Your task to perform on an android device: Go to display settings Image 0: 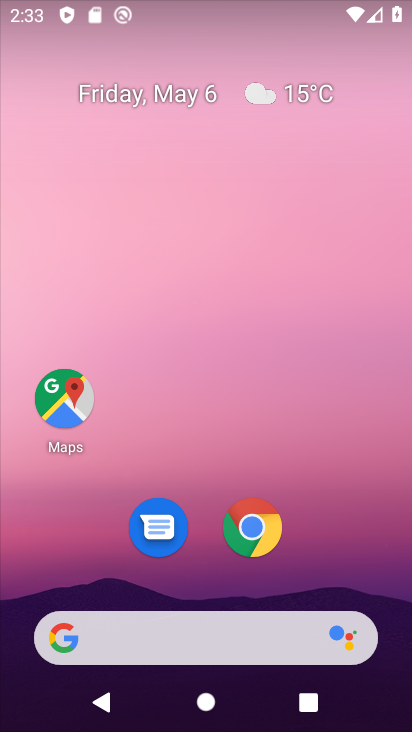
Step 0: drag from (222, 586) to (208, 264)
Your task to perform on an android device: Go to display settings Image 1: 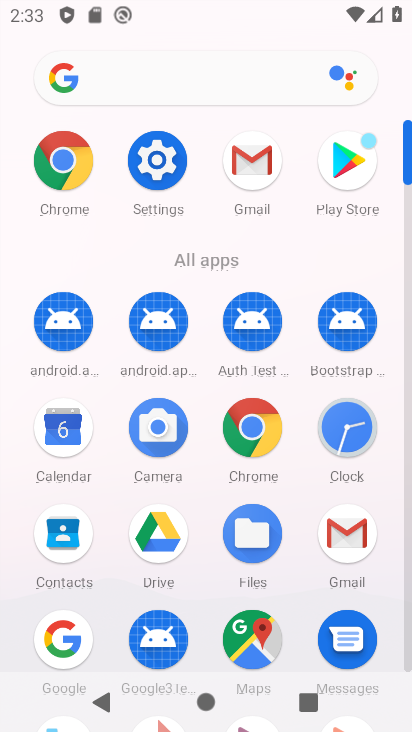
Step 1: click (152, 171)
Your task to perform on an android device: Go to display settings Image 2: 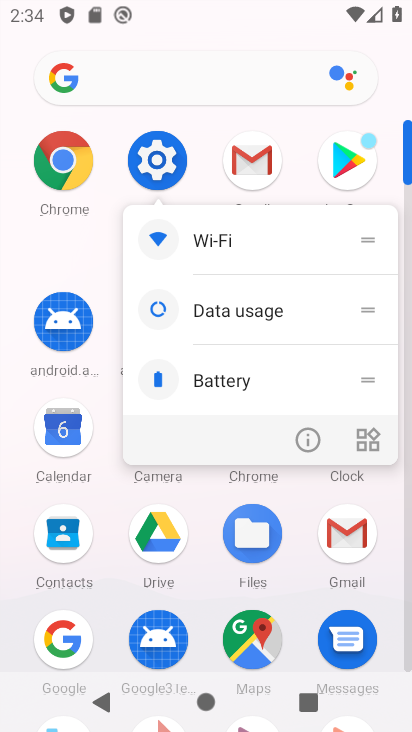
Step 2: click (304, 441)
Your task to perform on an android device: Go to display settings Image 3: 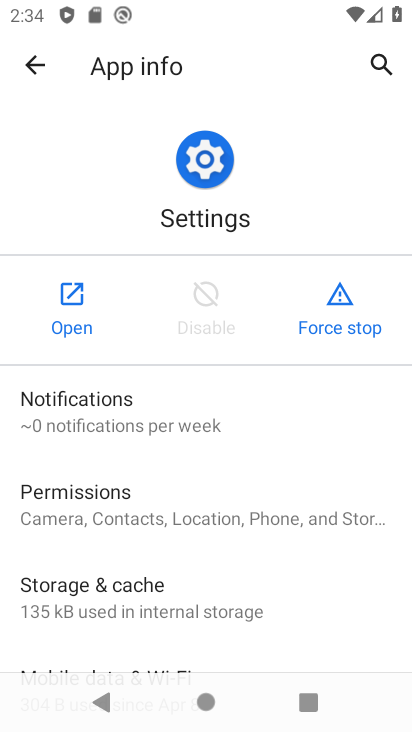
Step 3: click (81, 312)
Your task to perform on an android device: Go to display settings Image 4: 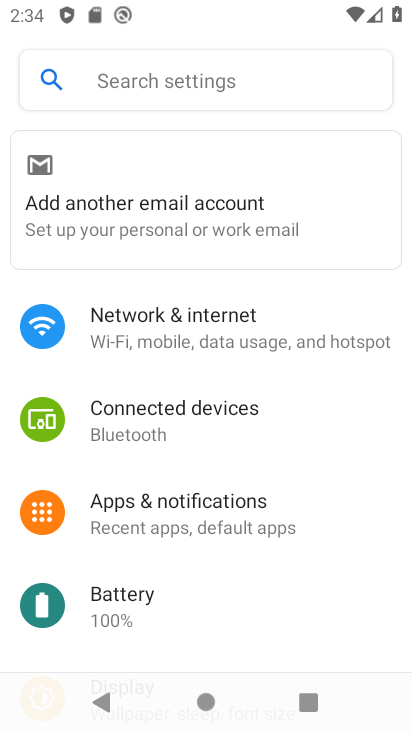
Step 4: drag from (206, 598) to (246, 275)
Your task to perform on an android device: Go to display settings Image 5: 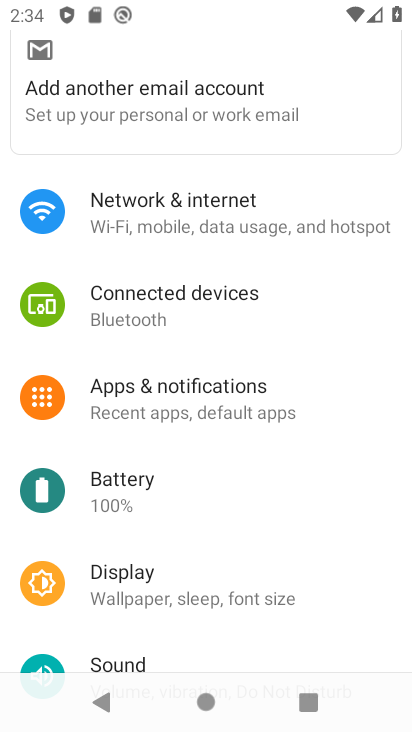
Step 5: click (226, 604)
Your task to perform on an android device: Go to display settings Image 6: 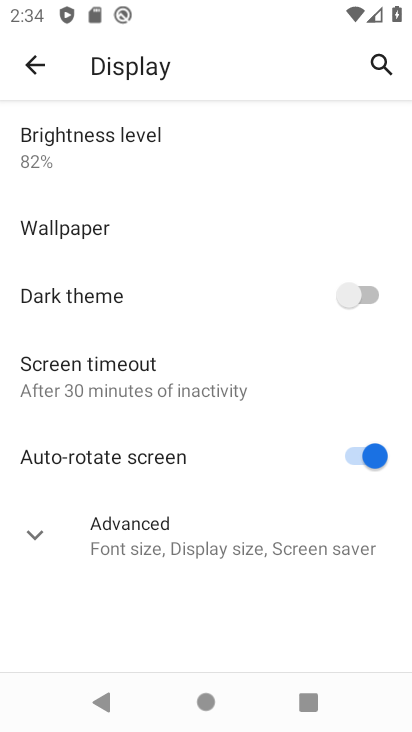
Step 6: task complete